Your task to perform on an android device: set the timer Image 0: 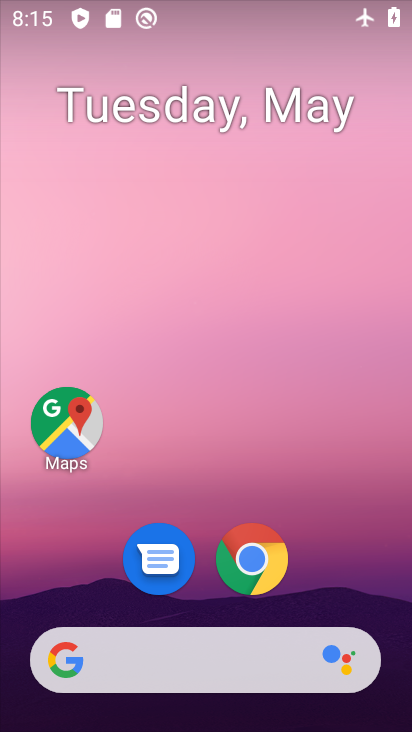
Step 0: drag from (204, 601) to (187, 232)
Your task to perform on an android device: set the timer Image 1: 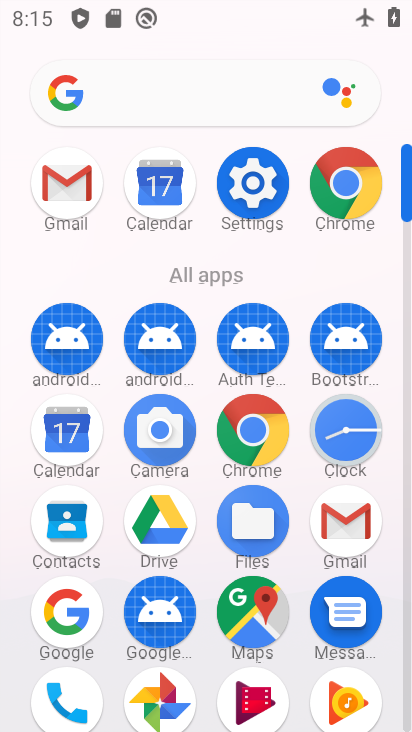
Step 1: click (327, 420)
Your task to perform on an android device: set the timer Image 2: 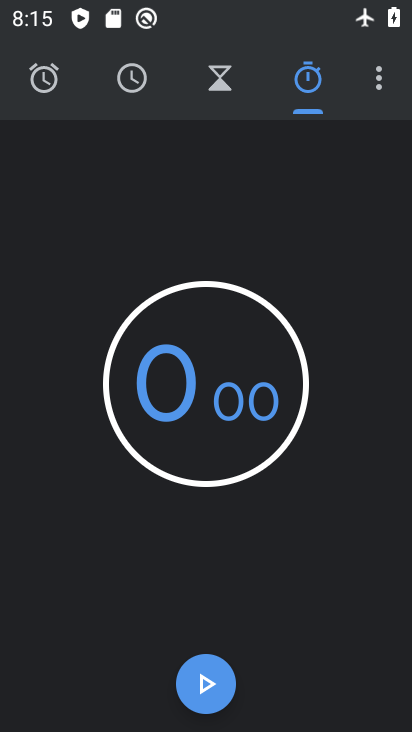
Step 2: click (207, 95)
Your task to perform on an android device: set the timer Image 3: 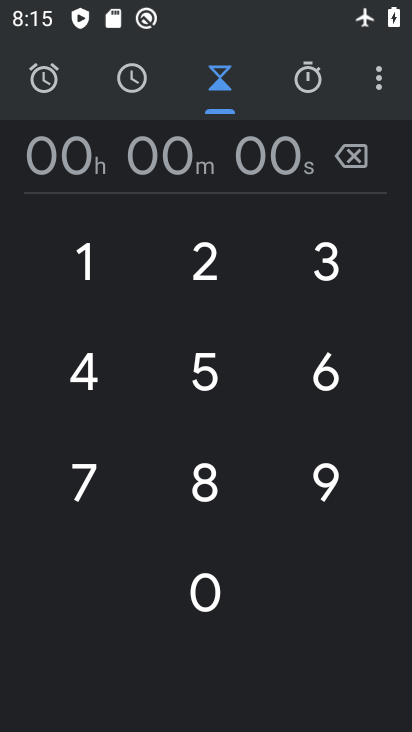
Step 3: click (251, 163)
Your task to perform on an android device: set the timer Image 4: 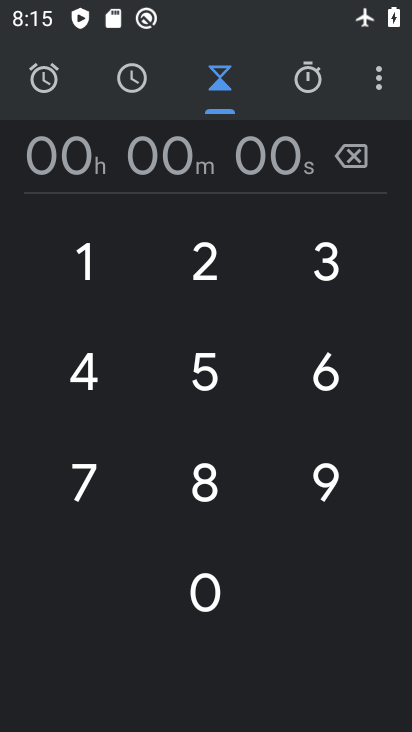
Step 4: type "23"
Your task to perform on an android device: set the timer Image 5: 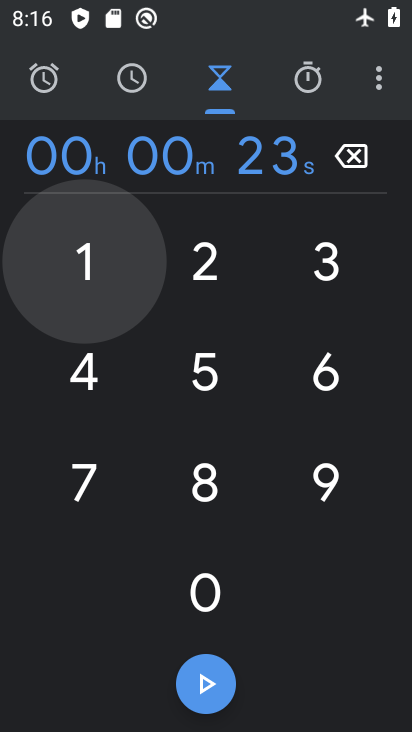
Step 5: click (219, 679)
Your task to perform on an android device: set the timer Image 6: 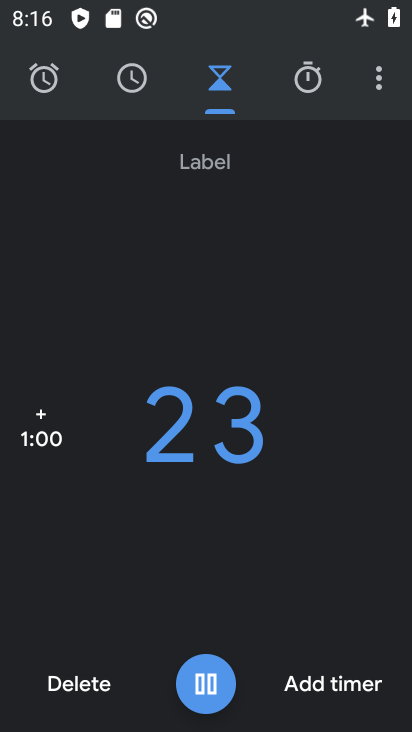
Step 6: task complete